Your task to perform on an android device: turn vacation reply on in the gmail app Image 0: 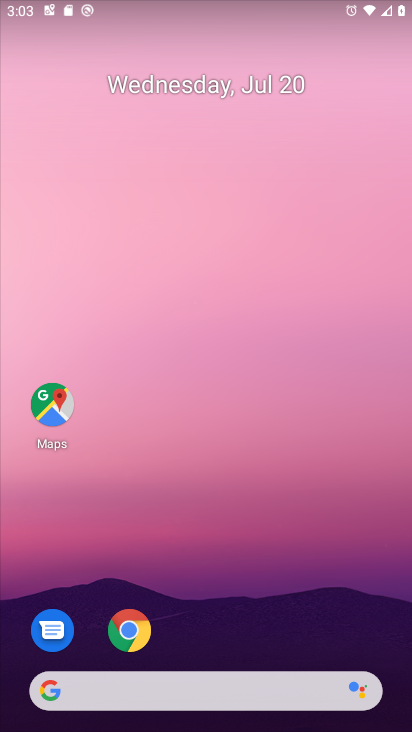
Step 0: click (190, 645)
Your task to perform on an android device: turn vacation reply on in the gmail app Image 1: 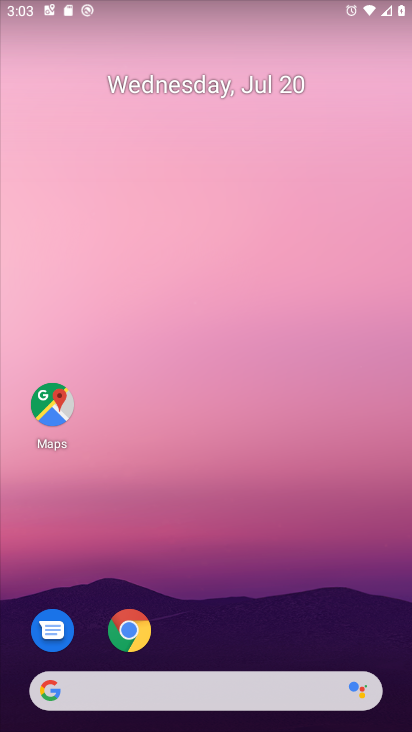
Step 1: drag from (190, 645) to (240, 179)
Your task to perform on an android device: turn vacation reply on in the gmail app Image 2: 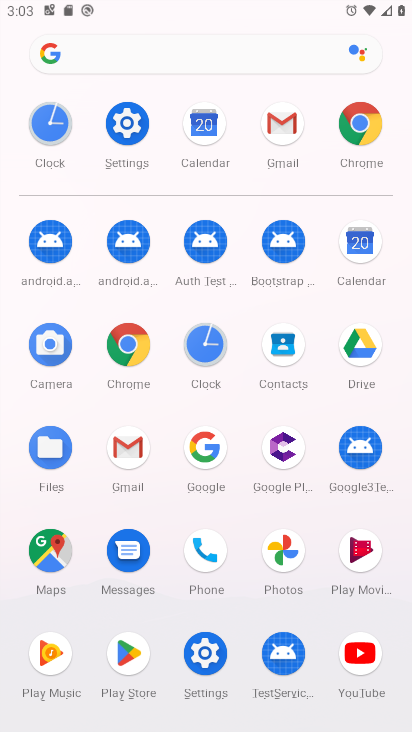
Step 2: click (127, 464)
Your task to perform on an android device: turn vacation reply on in the gmail app Image 3: 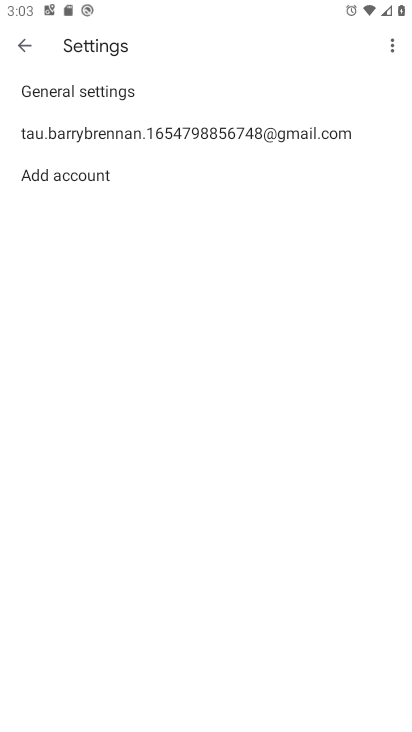
Step 3: click (143, 140)
Your task to perform on an android device: turn vacation reply on in the gmail app Image 4: 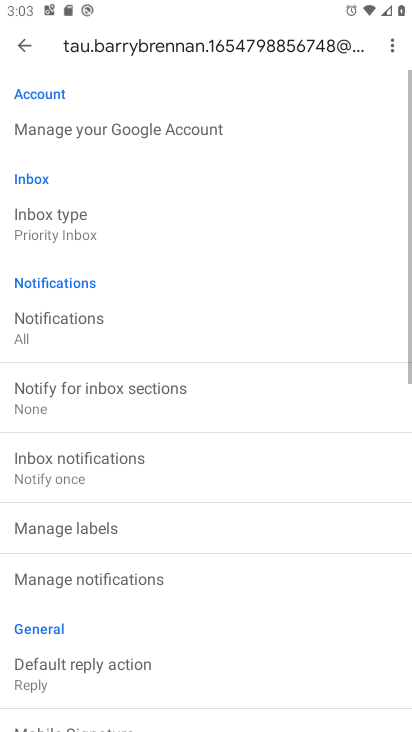
Step 4: drag from (211, 470) to (332, 15)
Your task to perform on an android device: turn vacation reply on in the gmail app Image 5: 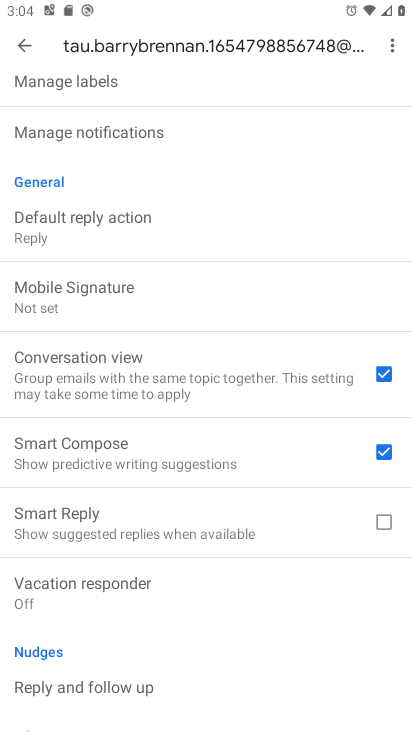
Step 5: click (224, 595)
Your task to perform on an android device: turn vacation reply on in the gmail app Image 6: 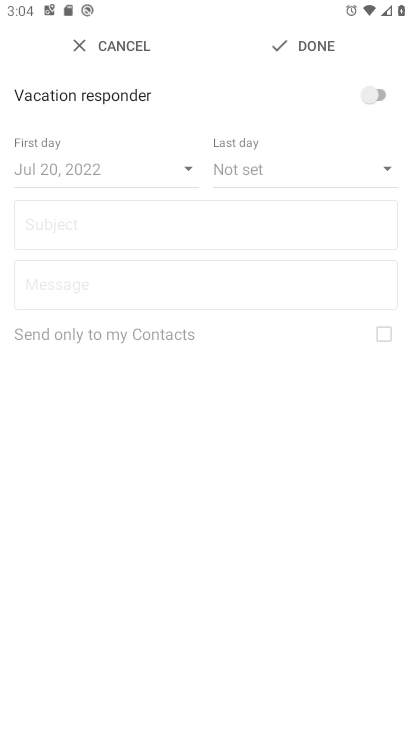
Step 6: click (378, 97)
Your task to perform on an android device: turn vacation reply on in the gmail app Image 7: 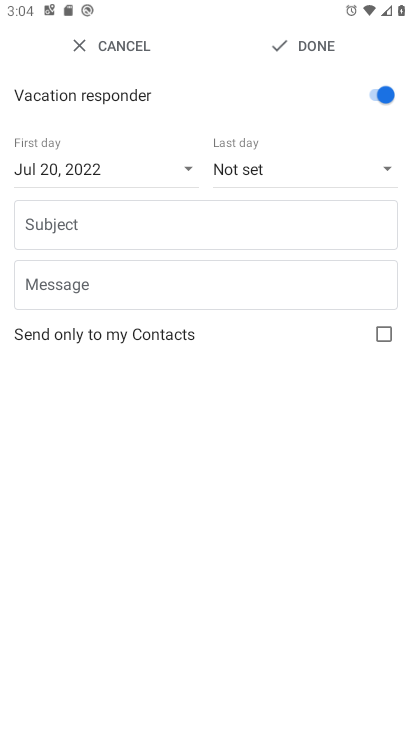
Step 7: task complete